Your task to perform on an android device: change text size in settings app Image 0: 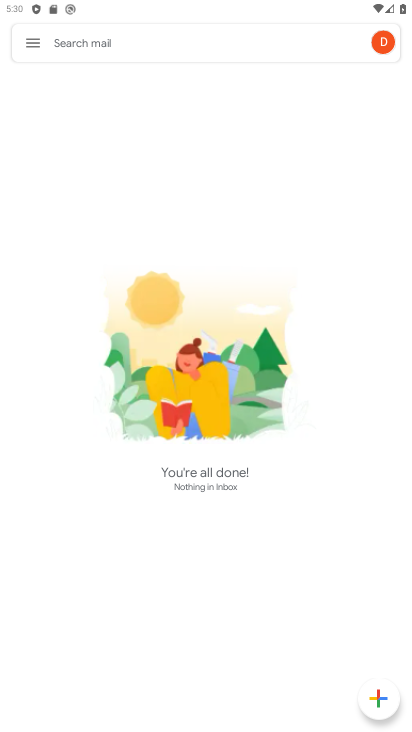
Step 0: press home button
Your task to perform on an android device: change text size in settings app Image 1: 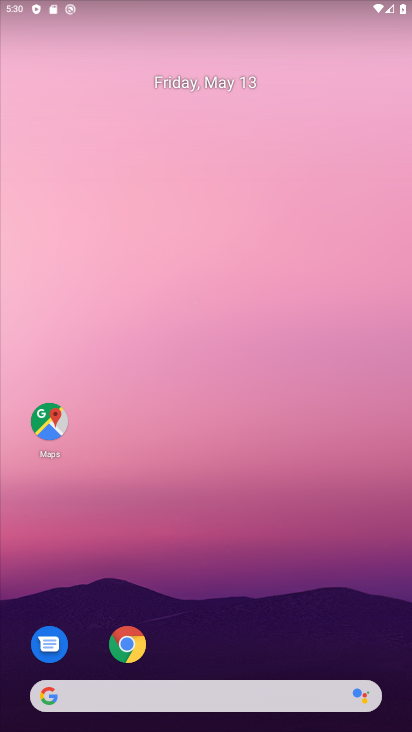
Step 1: drag from (209, 612) to (208, 19)
Your task to perform on an android device: change text size in settings app Image 2: 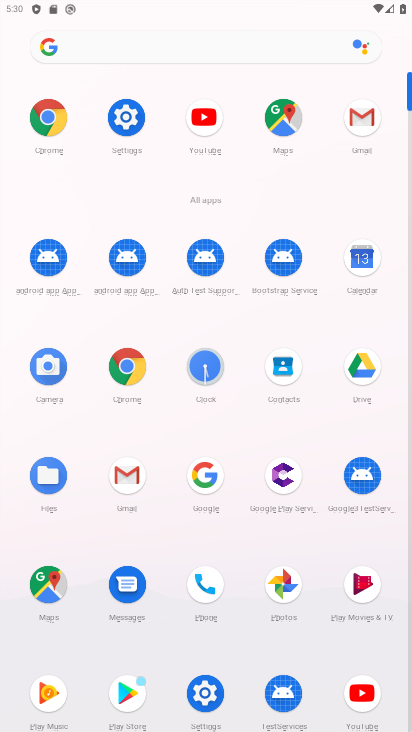
Step 2: click (134, 131)
Your task to perform on an android device: change text size in settings app Image 3: 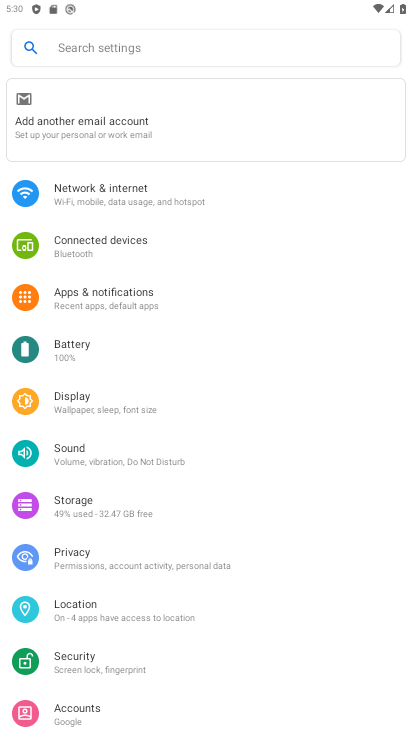
Step 3: click (114, 404)
Your task to perform on an android device: change text size in settings app Image 4: 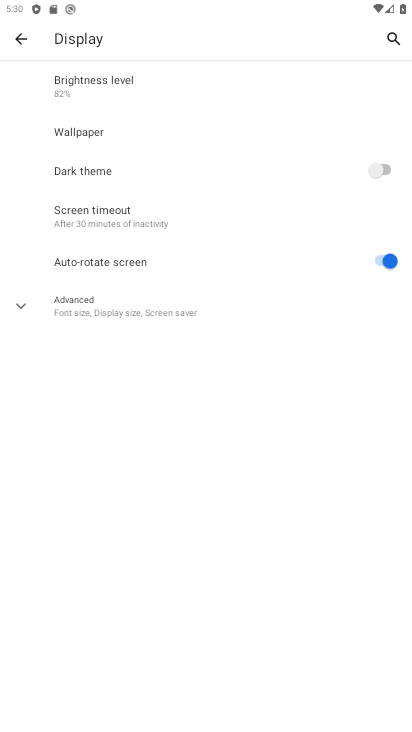
Step 4: click (103, 315)
Your task to perform on an android device: change text size in settings app Image 5: 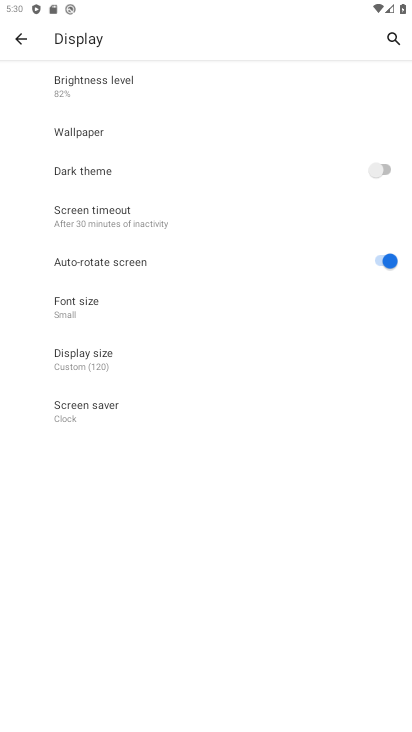
Step 5: click (90, 294)
Your task to perform on an android device: change text size in settings app Image 6: 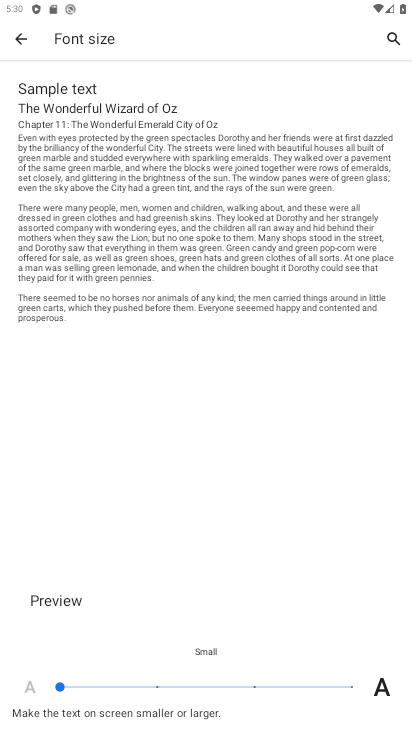
Step 6: click (154, 685)
Your task to perform on an android device: change text size in settings app Image 7: 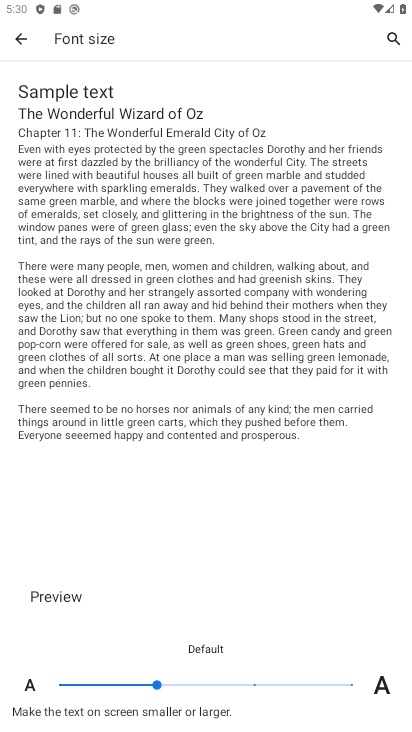
Step 7: task complete